Your task to perform on an android device: change notifications settings Image 0: 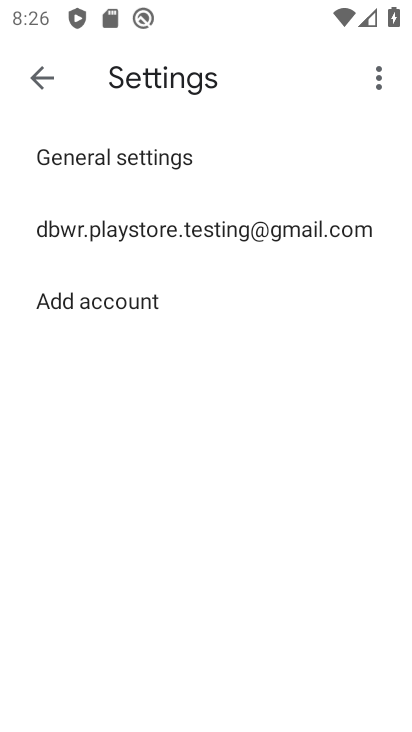
Step 0: click (45, 74)
Your task to perform on an android device: change notifications settings Image 1: 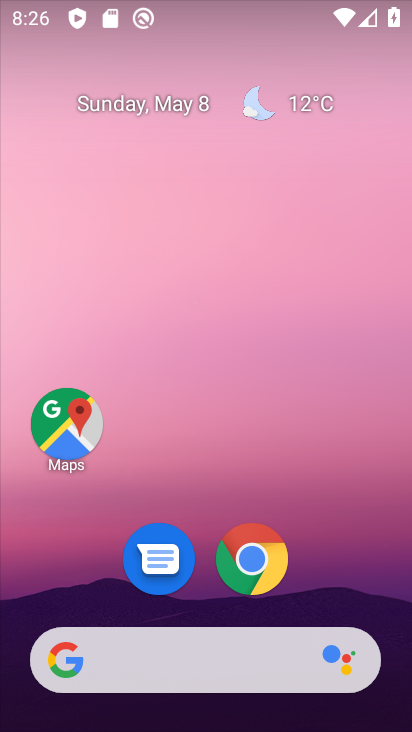
Step 1: drag from (165, 617) to (91, 24)
Your task to perform on an android device: change notifications settings Image 2: 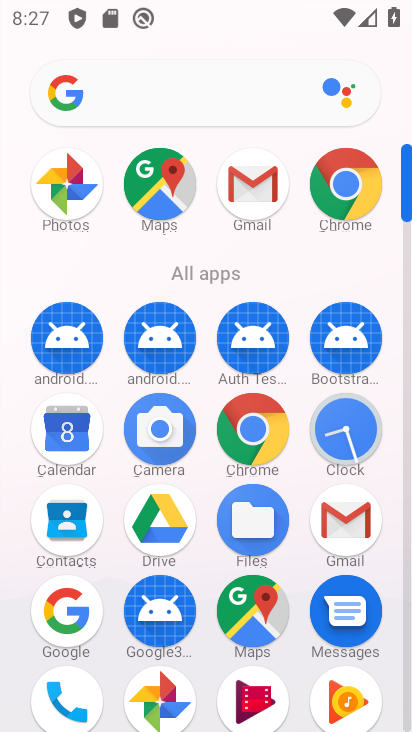
Step 2: drag from (197, 520) to (214, 18)
Your task to perform on an android device: change notifications settings Image 3: 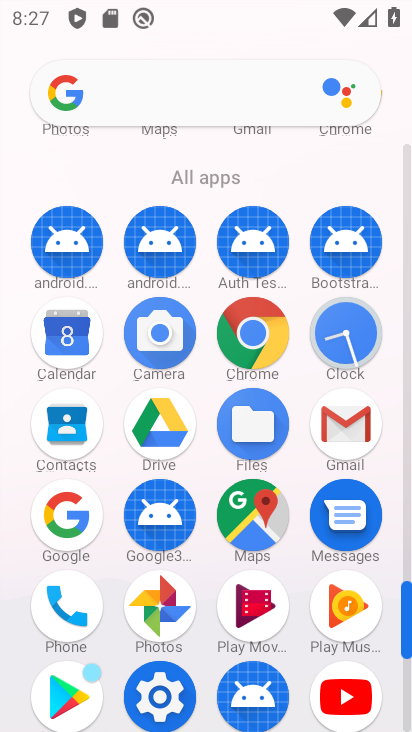
Step 3: click (144, 687)
Your task to perform on an android device: change notifications settings Image 4: 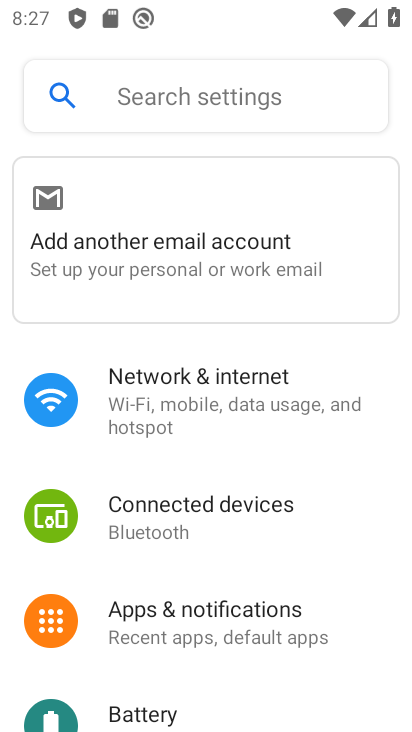
Step 4: click (151, 613)
Your task to perform on an android device: change notifications settings Image 5: 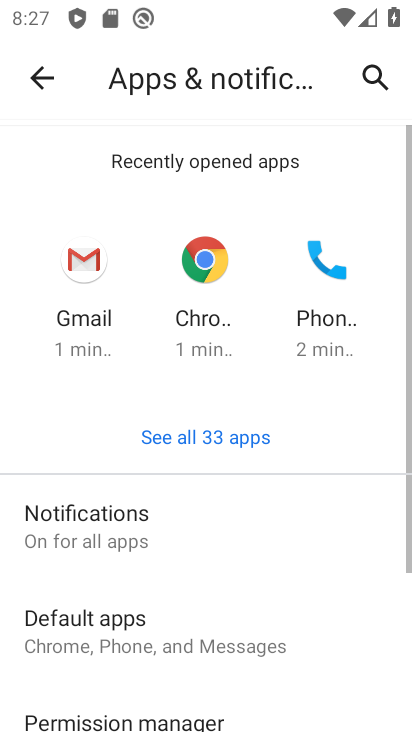
Step 5: click (152, 540)
Your task to perform on an android device: change notifications settings Image 6: 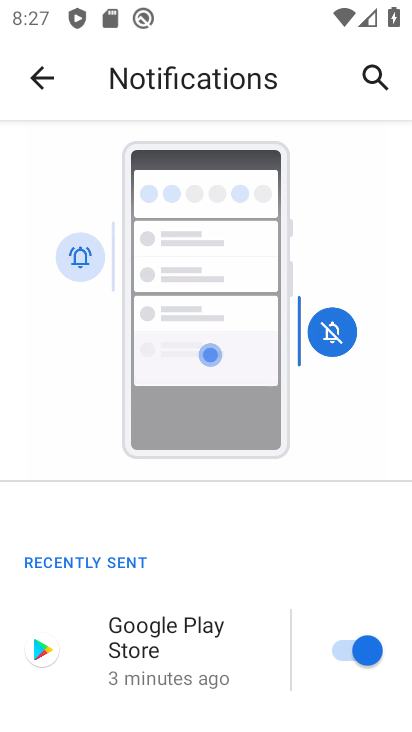
Step 6: drag from (247, 569) to (214, 26)
Your task to perform on an android device: change notifications settings Image 7: 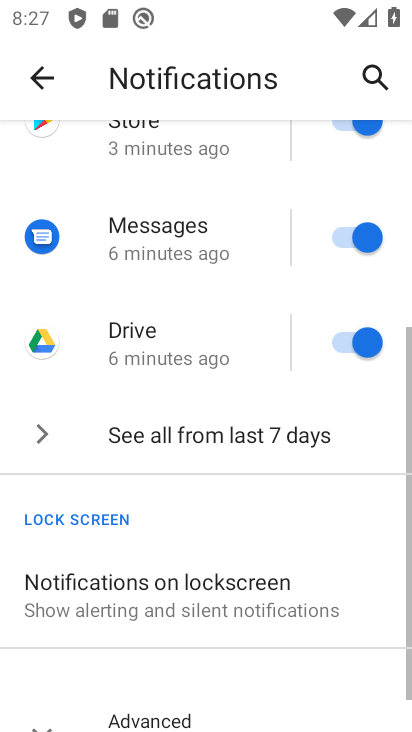
Step 7: click (161, 439)
Your task to perform on an android device: change notifications settings Image 8: 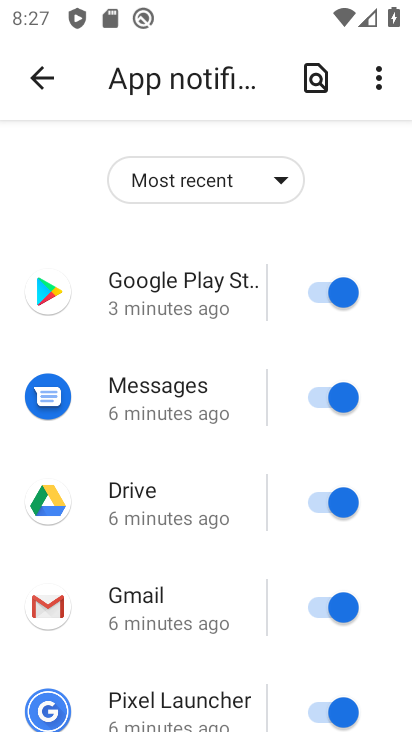
Step 8: click (207, 189)
Your task to perform on an android device: change notifications settings Image 9: 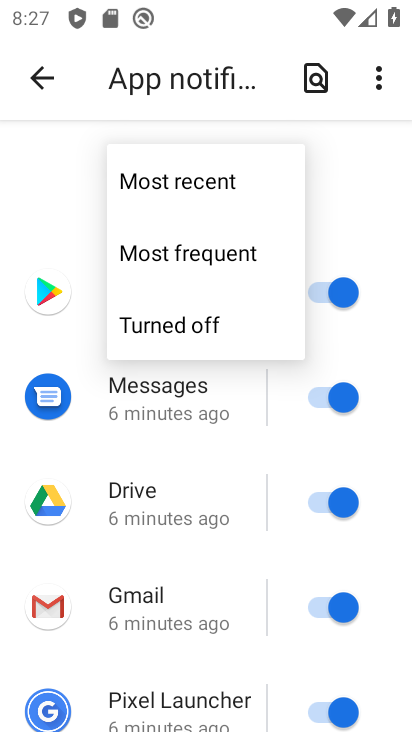
Step 9: click (146, 319)
Your task to perform on an android device: change notifications settings Image 10: 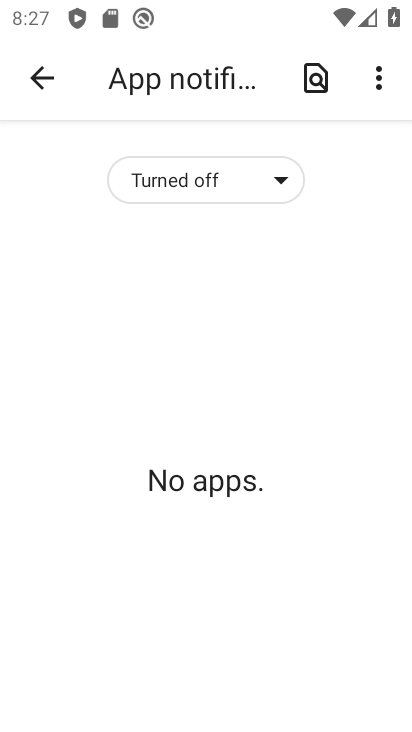
Step 10: task complete